Your task to perform on an android device: turn pop-ups on in chrome Image 0: 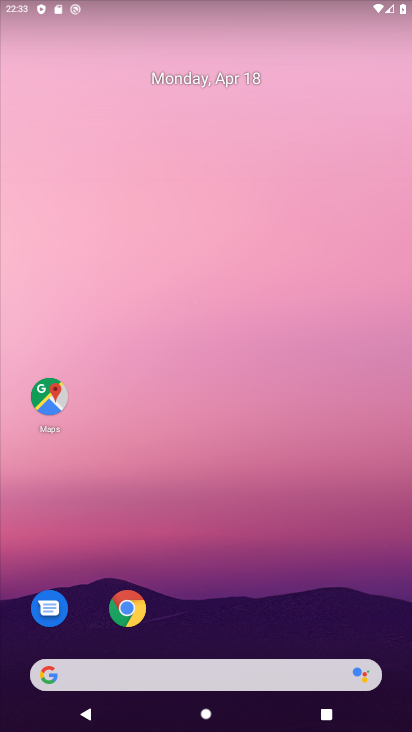
Step 0: click (124, 608)
Your task to perform on an android device: turn pop-ups on in chrome Image 1: 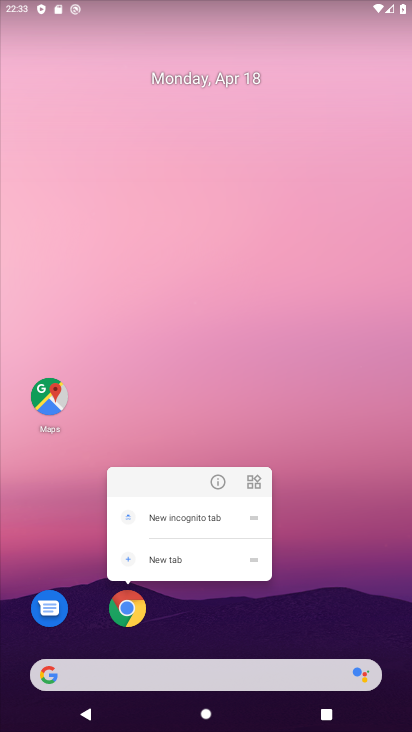
Step 1: click (124, 613)
Your task to perform on an android device: turn pop-ups on in chrome Image 2: 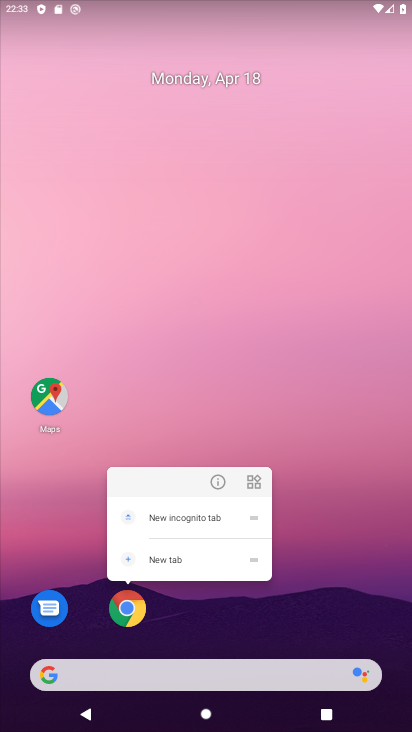
Step 2: click (122, 611)
Your task to perform on an android device: turn pop-ups on in chrome Image 3: 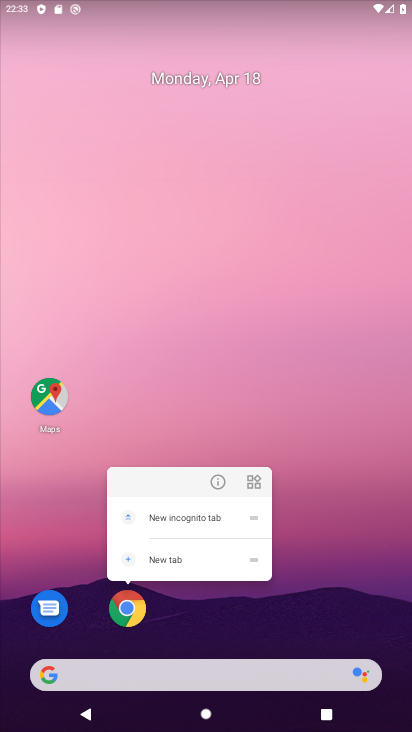
Step 3: click (128, 615)
Your task to perform on an android device: turn pop-ups on in chrome Image 4: 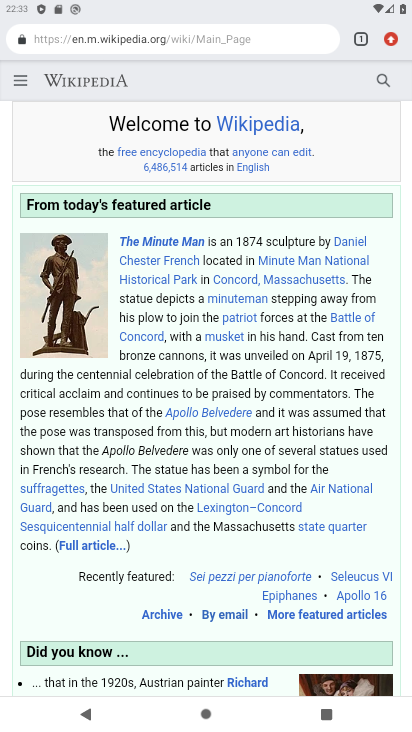
Step 4: click (395, 36)
Your task to perform on an android device: turn pop-ups on in chrome Image 5: 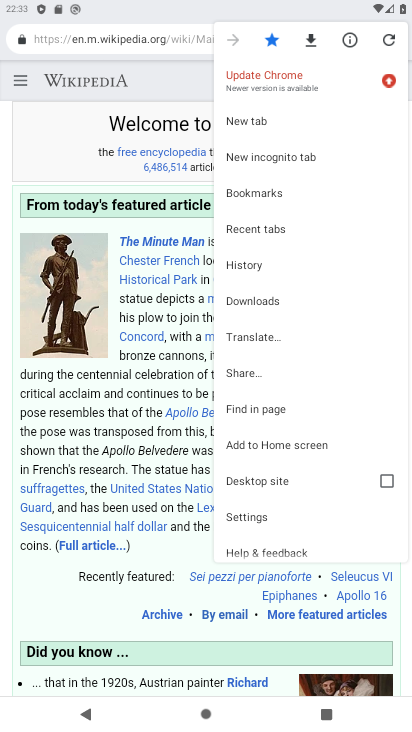
Step 5: click (257, 509)
Your task to perform on an android device: turn pop-ups on in chrome Image 6: 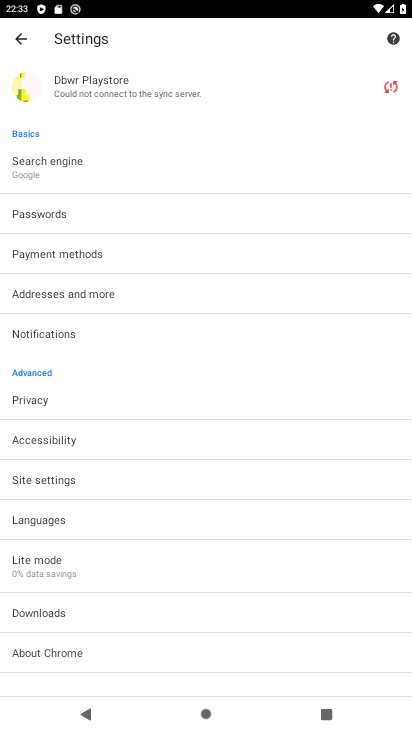
Step 6: click (61, 478)
Your task to perform on an android device: turn pop-ups on in chrome Image 7: 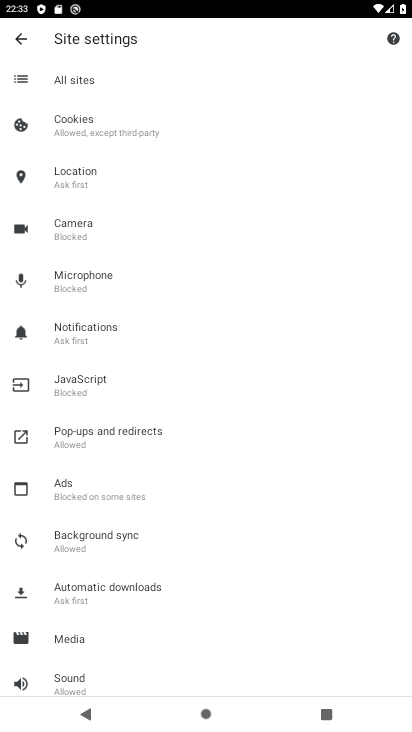
Step 7: click (103, 428)
Your task to perform on an android device: turn pop-ups on in chrome Image 8: 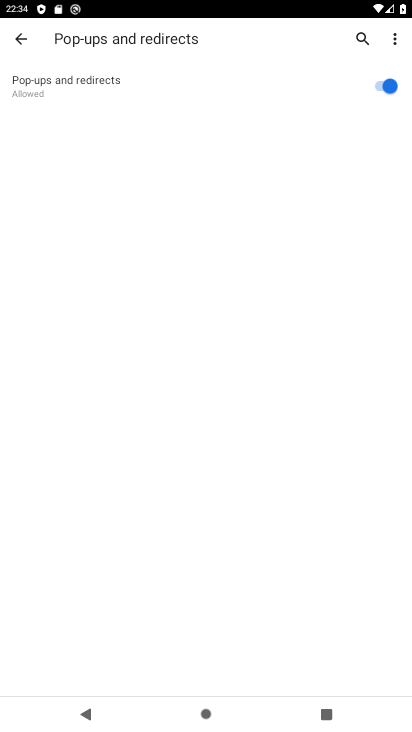
Step 8: task complete